Your task to perform on an android device: turn on improve location accuracy Image 0: 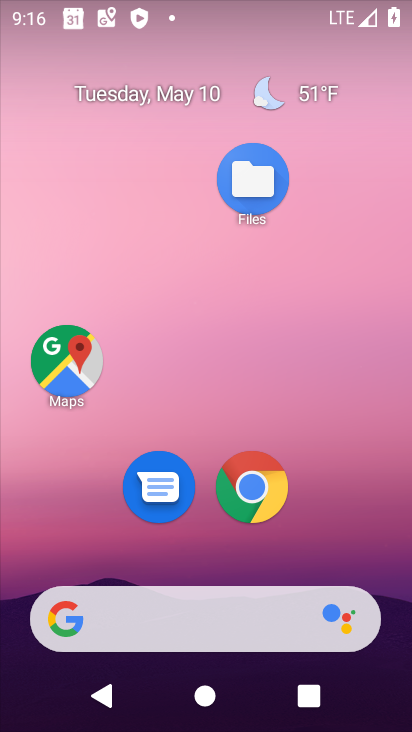
Step 0: drag from (226, 565) to (267, 108)
Your task to perform on an android device: turn on improve location accuracy Image 1: 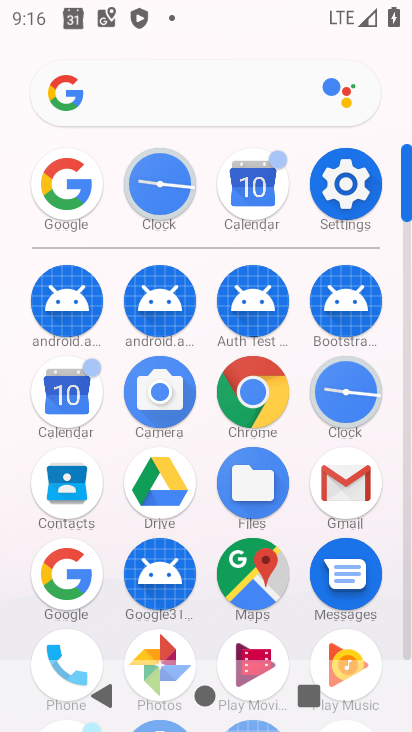
Step 1: click (340, 190)
Your task to perform on an android device: turn on improve location accuracy Image 2: 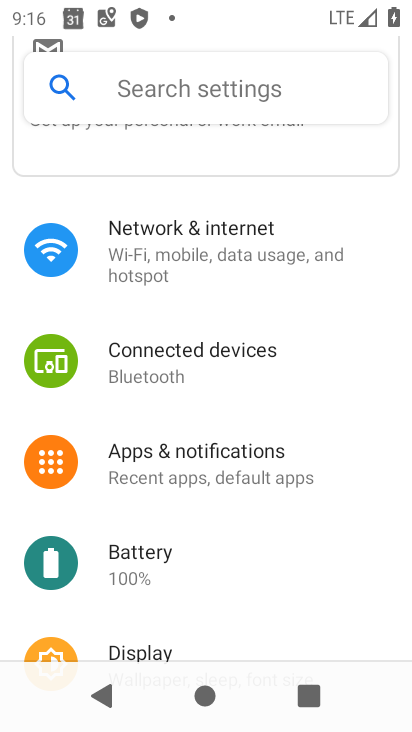
Step 2: drag from (241, 523) to (280, 62)
Your task to perform on an android device: turn on improve location accuracy Image 3: 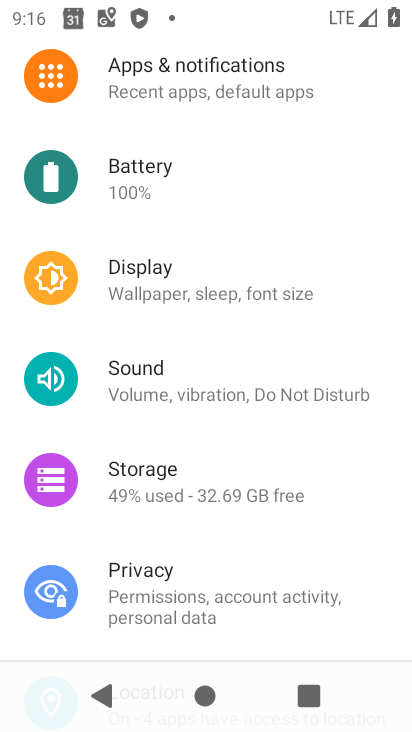
Step 3: drag from (198, 552) to (238, 266)
Your task to perform on an android device: turn on improve location accuracy Image 4: 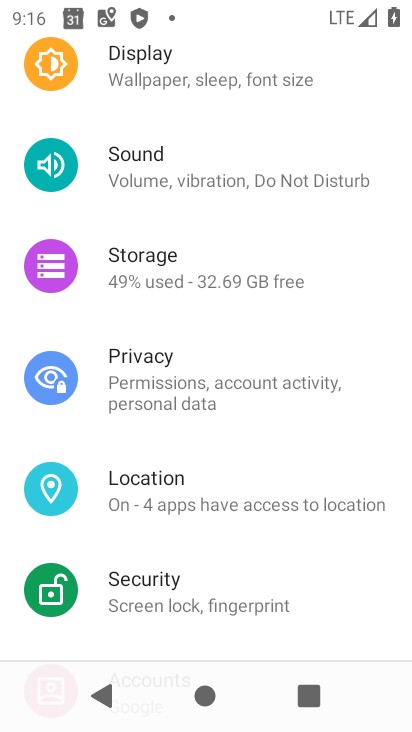
Step 4: click (174, 481)
Your task to perform on an android device: turn on improve location accuracy Image 5: 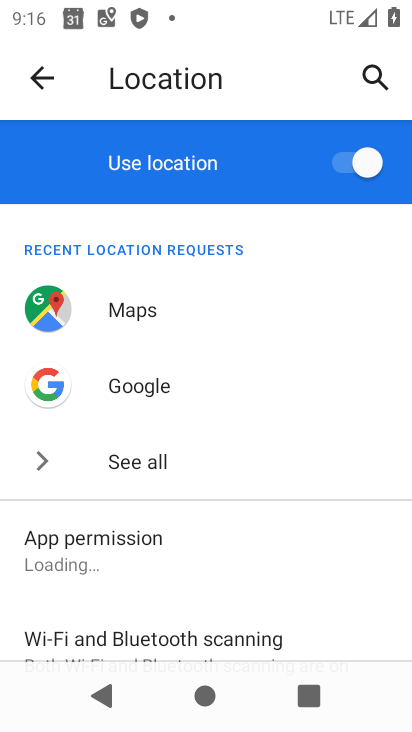
Step 5: drag from (238, 521) to (224, 242)
Your task to perform on an android device: turn on improve location accuracy Image 6: 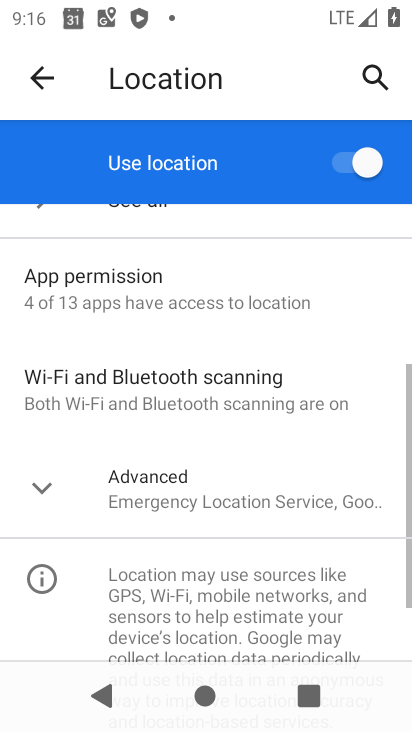
Step 6: click (180, 497)
Your task to perform on an android device: turn on improve location accuracy Image 7: 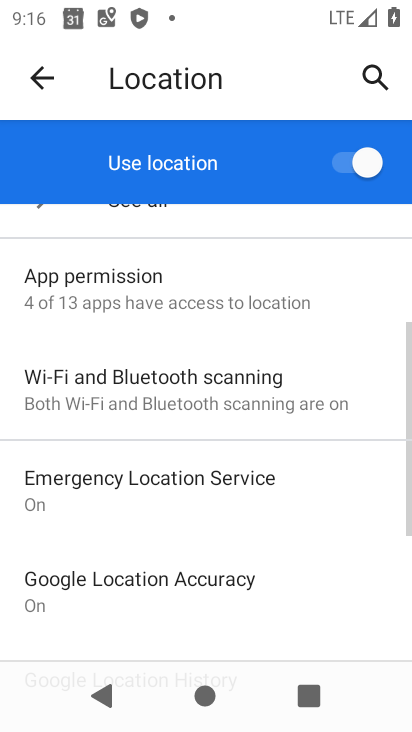
Step 7: click (183, 575)
Your task to perform on an android device: turn on improve location accuracy Image 8: 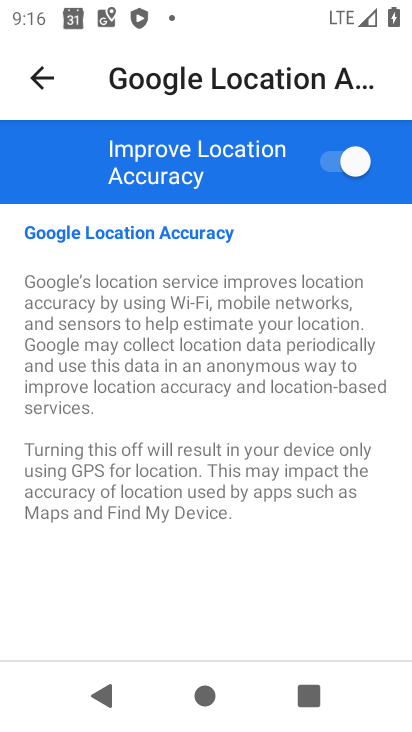
Step 8: task complete